Your task to perform on an android device: turn on showing notifications on the lock screen Image 0: 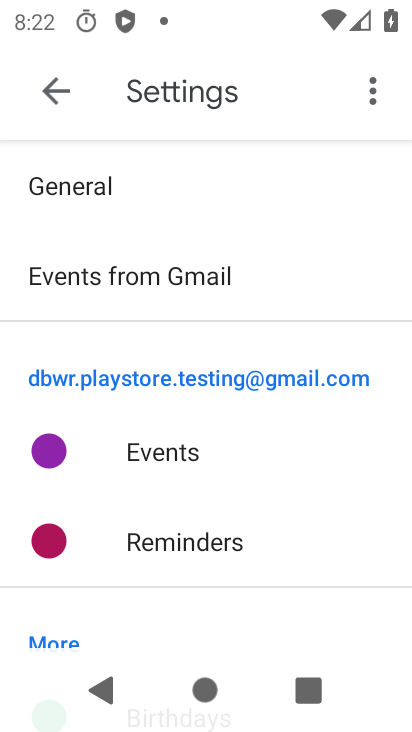
Step 0: press home button
Your task to perform on an android device: turn on showing notifications on the lock screen Image 1: 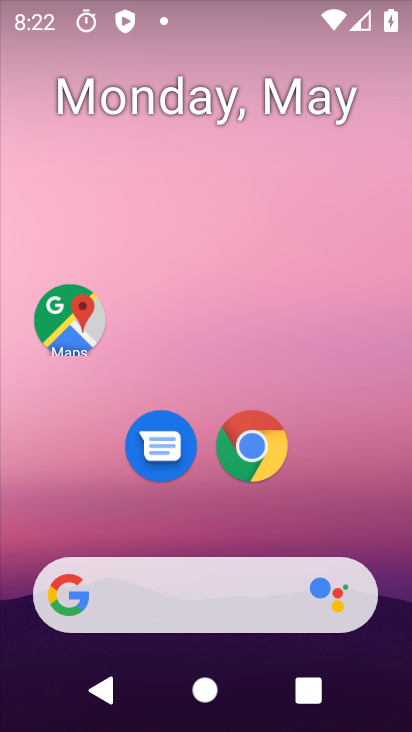
Step 1: drag from (326, 561) to (281, 12)
Your task to perform on an android device: turn on showing notifications on the lock screen Image 2: 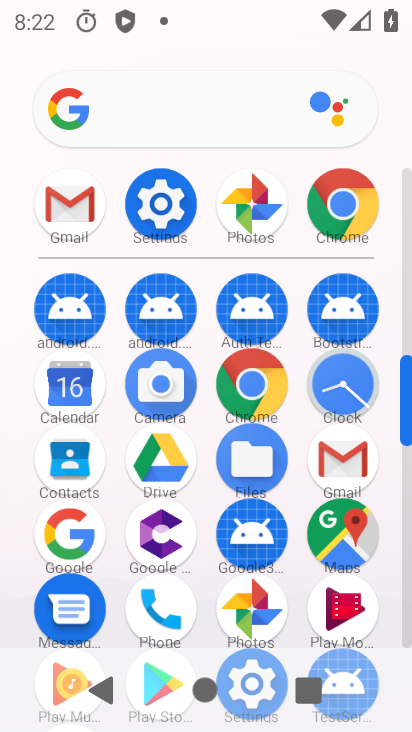
Step 2: click (157, 209)
Your task to perform on an android device: turn on showing notifications on the lock screen Image 3: 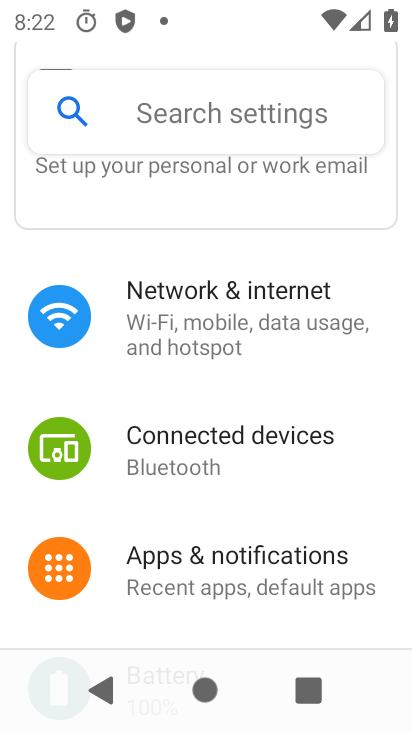
Step 3: click (172, 568)
Your task to perform on an android device: turn on showing notifications on the lock screen Image 4: 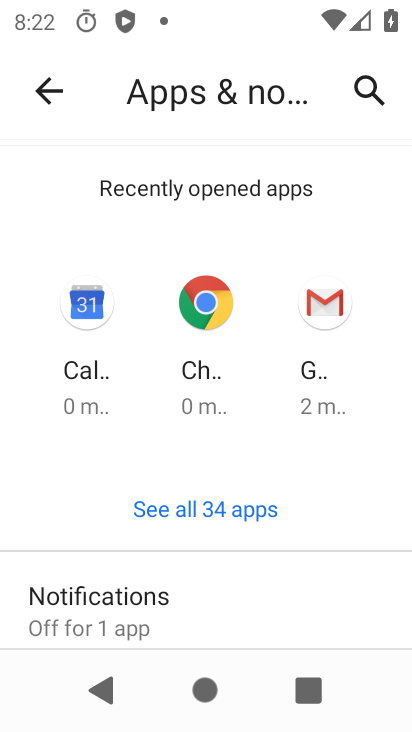
Step 4: drag from (170, 566) to (186, 177)
Your task to perform on an android device: turn on showing notifications on the lock screen Image 5: 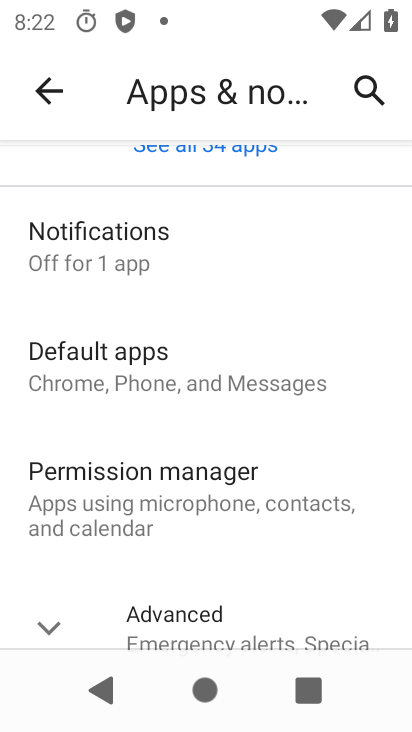
Step 5: click (97, 277)
Your task to perform on an android device: turn on showing notifications on the lock screen Image 6: 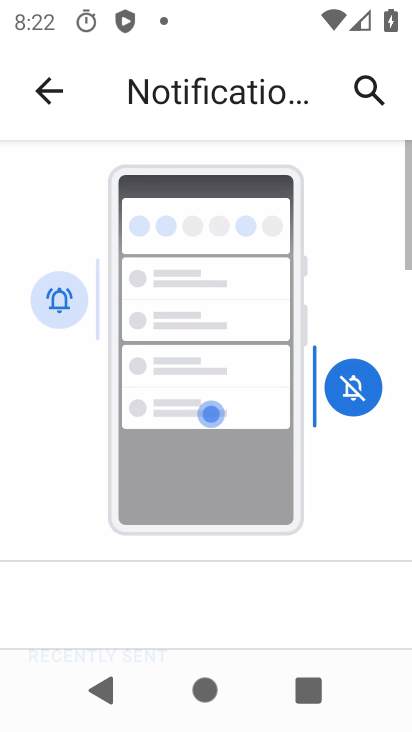
Step 6: drag from (202, 621) to (257, 133)
Your task to perform on an android device: turn on showing notifications on the lock screen Image 7: 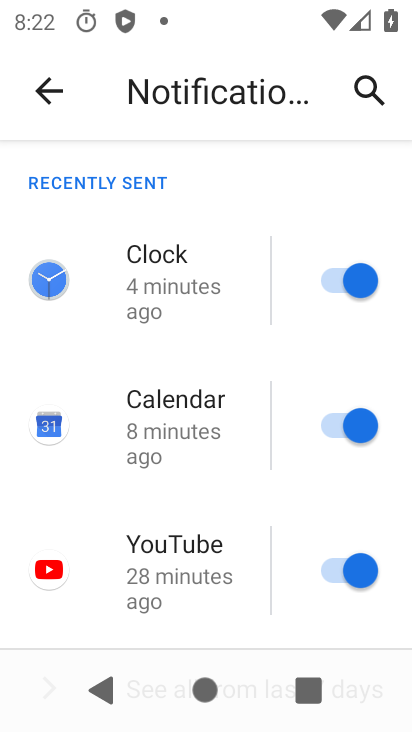
Step 7: drag from (164, 528) to (194, 72)
Your task to perform on an android device: turn on showing notifications on the lock screen Image 8: 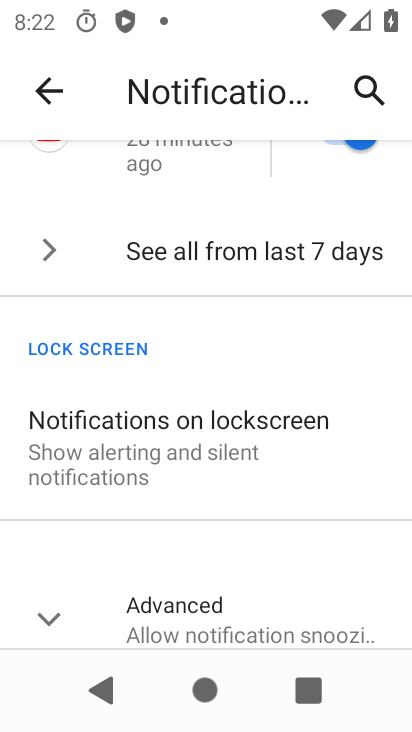
Step 8: click (44, 616)
Your task to perform on an android device: turn on showing notifications on the lock screen Image 9: 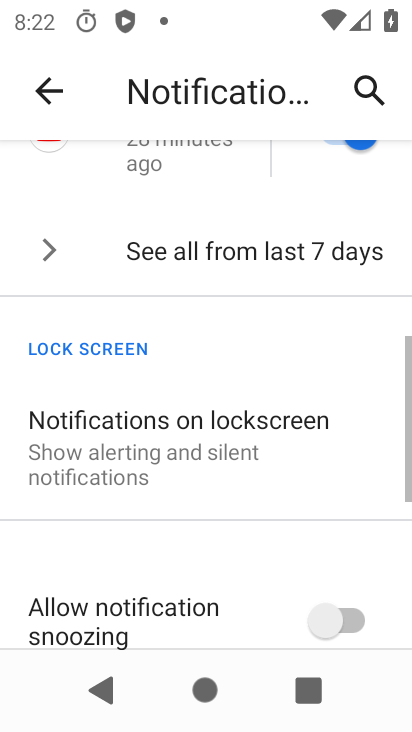
Step 9: click (85, 464)
Your task to perform on an android device: turn on showing notifications on the lock screen Image 10: 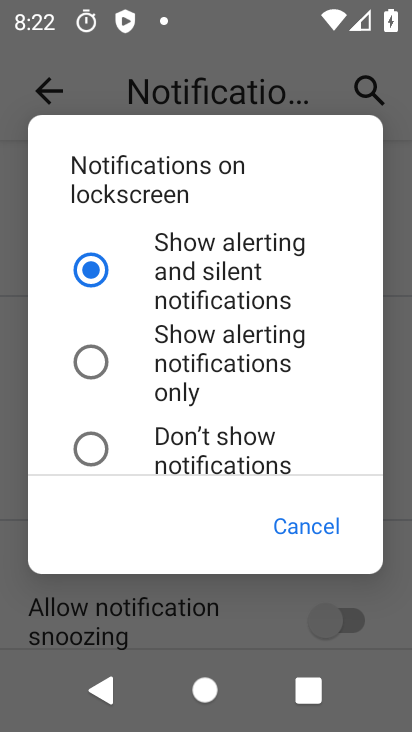
Step 10: task complete